Your task to perform on an android device: read, delete, or share a saved page in the chrome app Image 0: 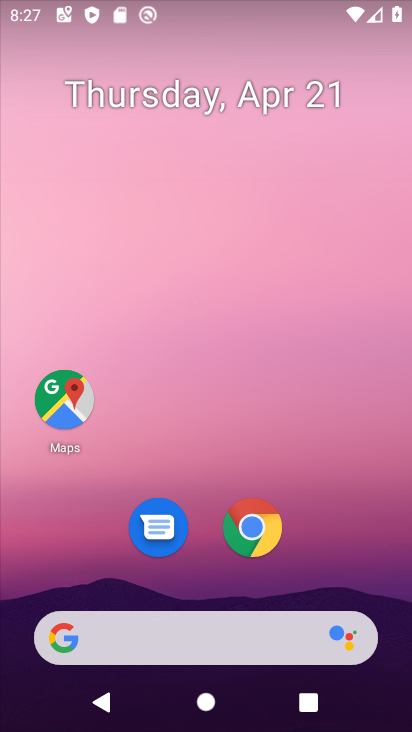
Step 0: drag from (220, 632) to (296, 113)
Your task to perform on an android device: read, delete, or share a saved page in the chrome app Image 1: 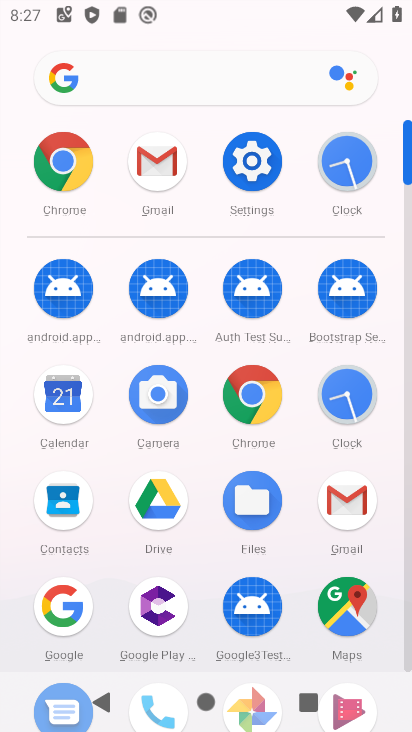
Step 1: click (257, 407)
Your task to perform on an android device: read, delete, or share a saved page in the chrome app Image 2: 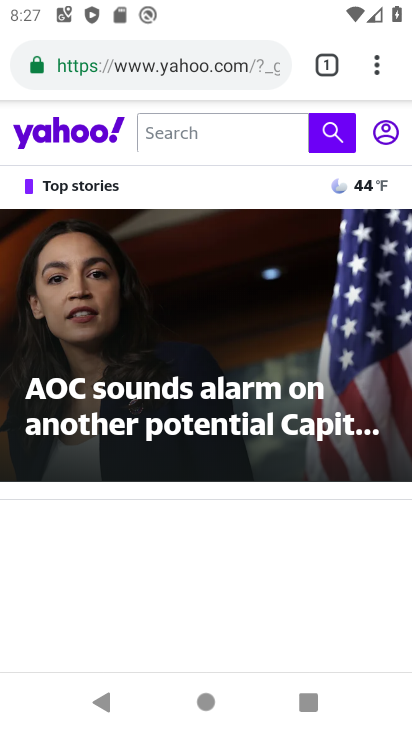
Step 2: click (373, 72)
Your task to perform on an android device: read, delete, or share a saved page in the chrome app Image 3: 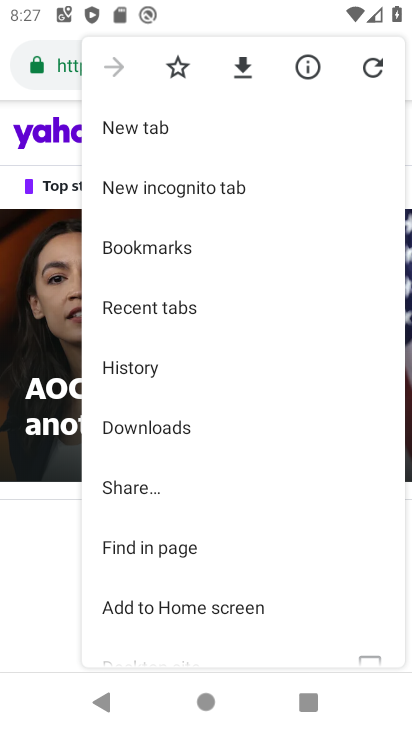
Step 3: drag from (329, 385) to (259, 17)
Your task to perform on an android device: read, delete, or share a saved page in the chrome app Image 4: 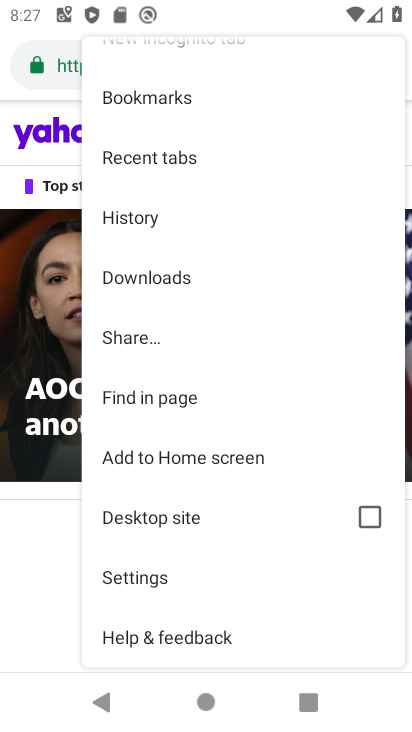
Step 4: click (208, 284)
Your task to perform on an android device: read, delete, or share a saved page in the chrome app Image 5: 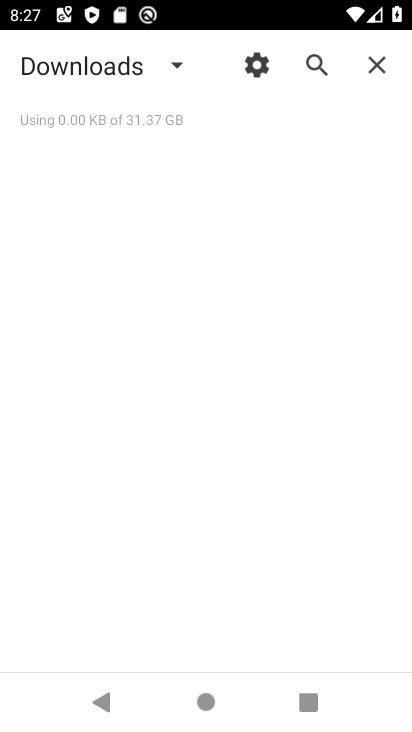
Step 5: click (169, 69)
Your task to perform on an android device: read, delete, or share a saved page in the chrome app Image 6: 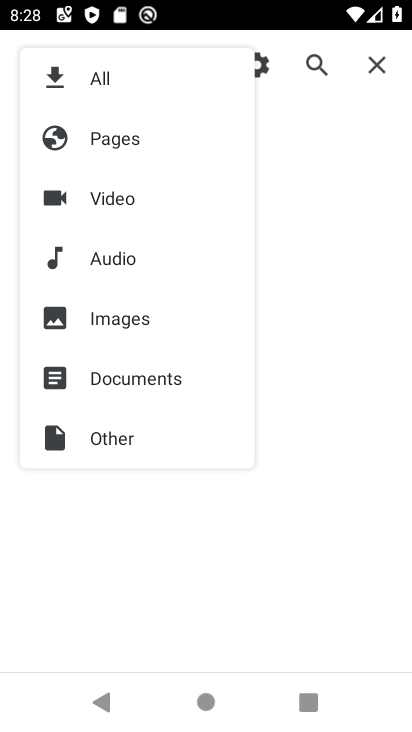
Step 6: click (152, 131)
Your task to perform on an android device: read, delete, or share a saved page in the chrome app Image 7: 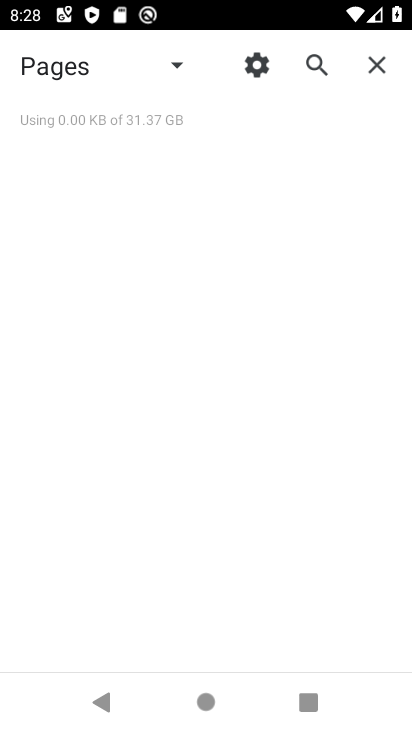
Step 7: task complete